Your task to perform on an android device: Go to sound settings Image 0: 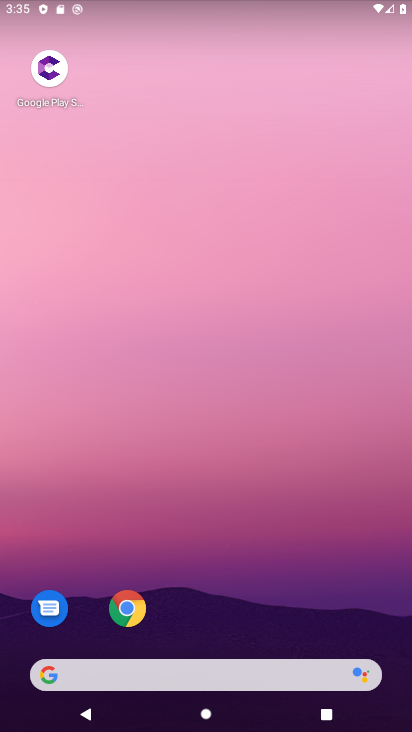
Step 0: drag from (203, 650) to (235, 278)
Your task to perform on an android device: Go to sound settings Image 1: 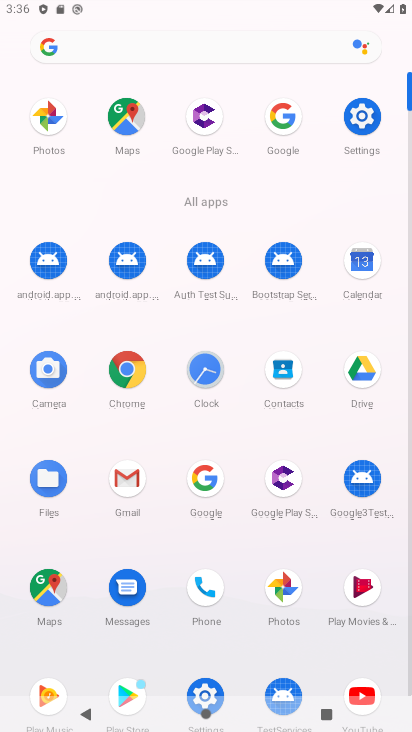
Step 1: click (354, 117)
Your task to perform on an android device: Go to sound settings Image 2: 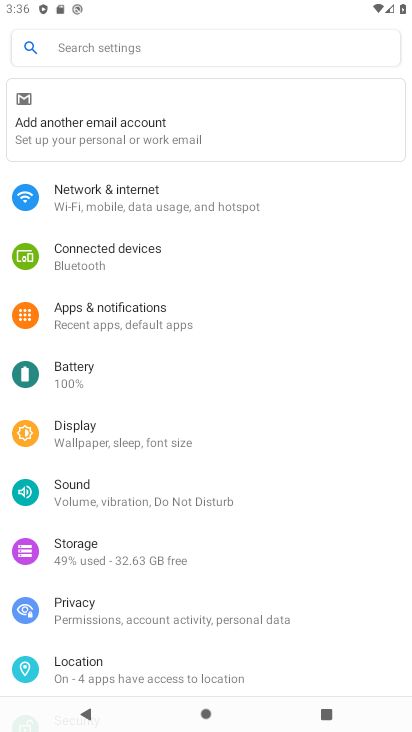
Step 2: click (141, 497)
Your task to perform on an android device: Go to sound settings Image 3: 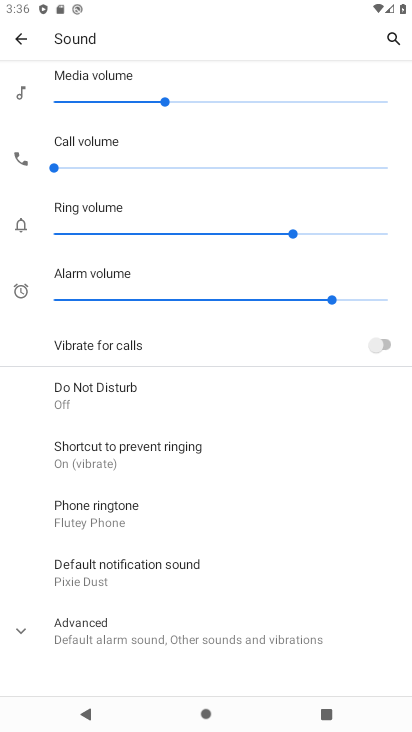
Step 3: task complete